Your task to perform on an android device: turn off location history Image 0: 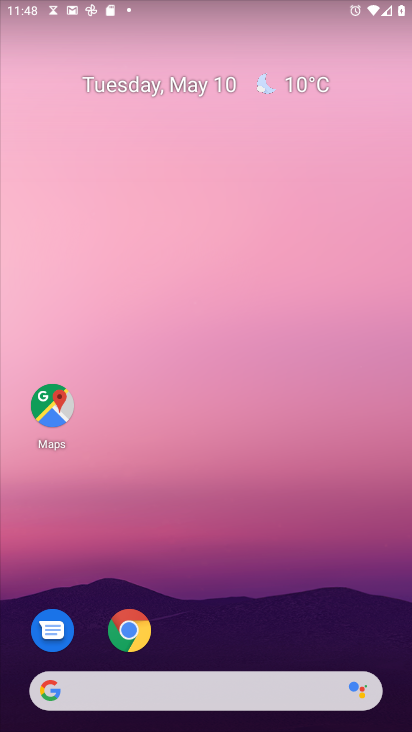
Step 0: drag from (244, 596) to (206, 96)
Your task to perform on an android device: turn off location history Image 1: 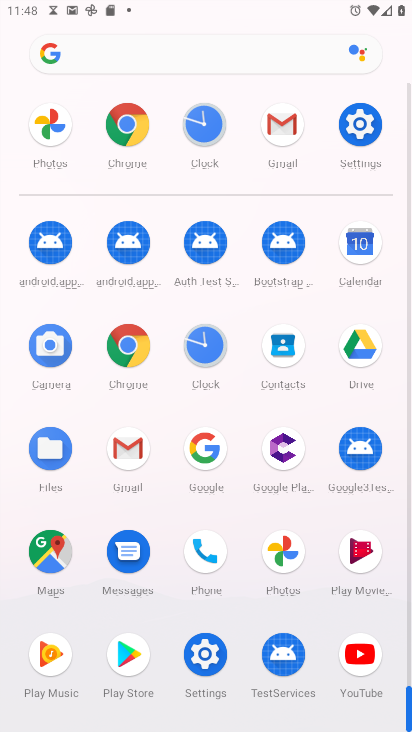
Step 1: click (366, 119)
Your task to perform on an android device: turn off location history Image 2: 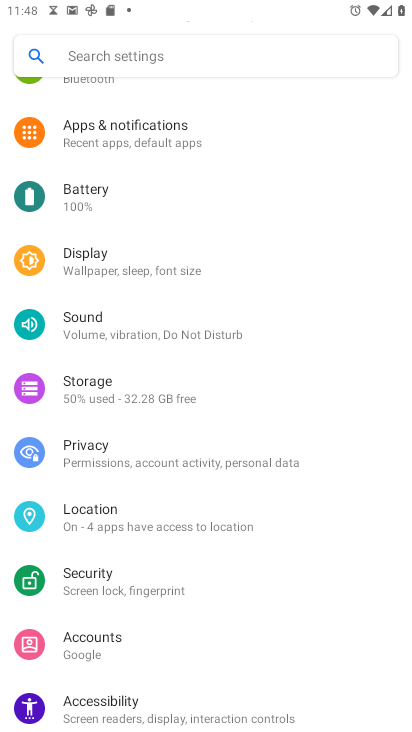
Step 2: click (157, 522)
Your task to perform on an android device: turn off location history Image 3: 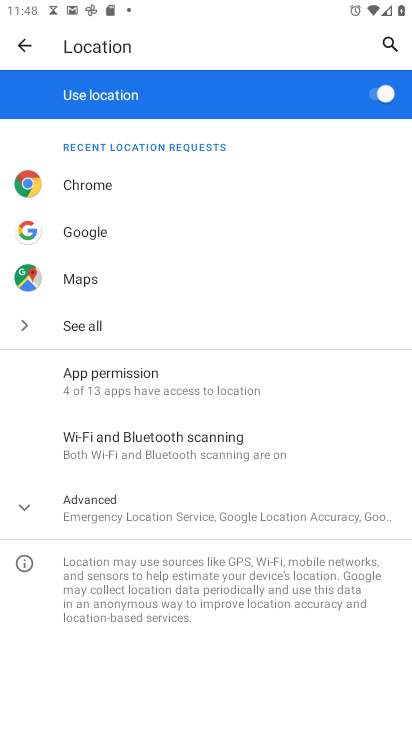
Step 3: click (272, 506)
Your task to perform on an android device: turn off location history Image 4: 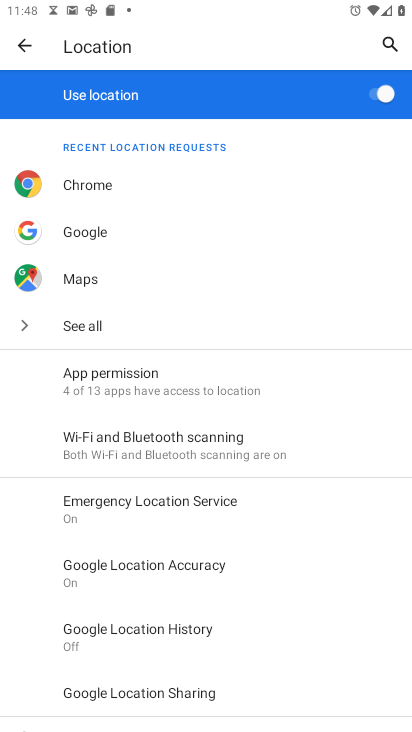
Step 4: click (177, 630)
Your task to perform on an android device: turn off location history Image 5: 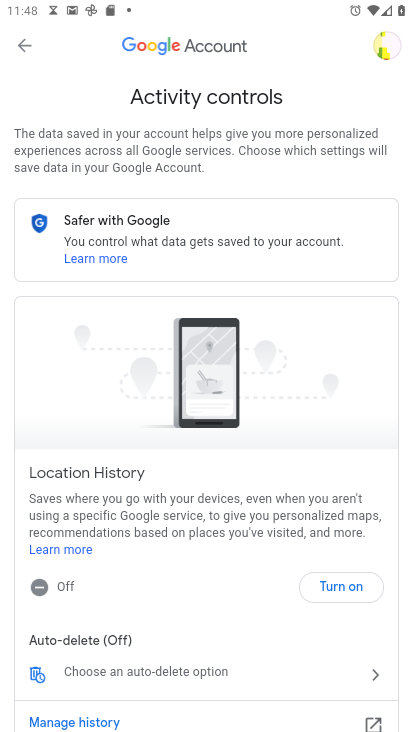
Step 5: task complete